Your task to perform on an android device: Go to accessibility settings Image 0: 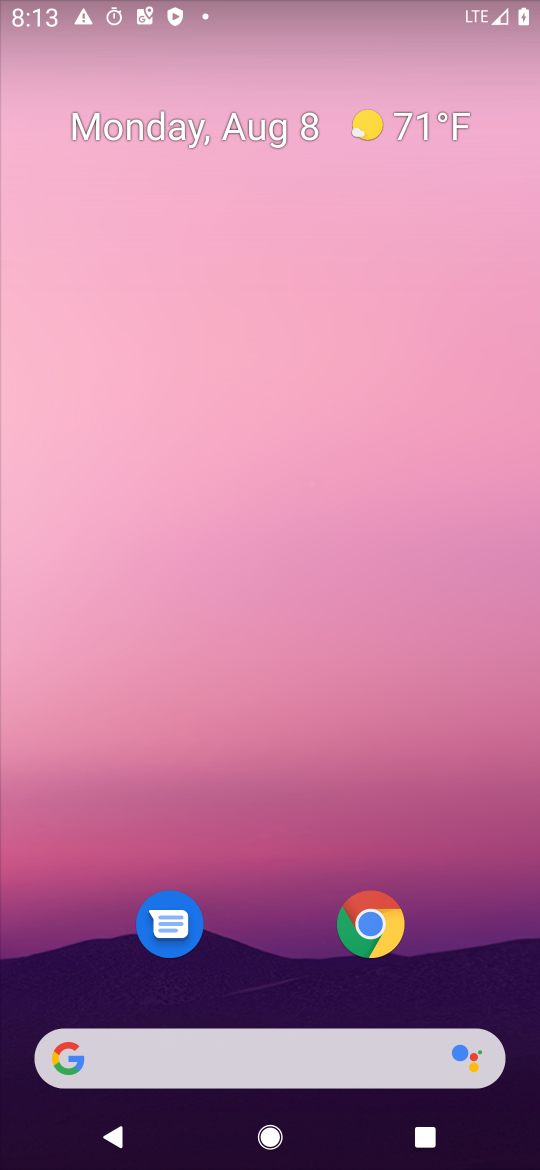
Step 0: press home button
Your task to perform on an android device: Go to accessibility settings Image 1: 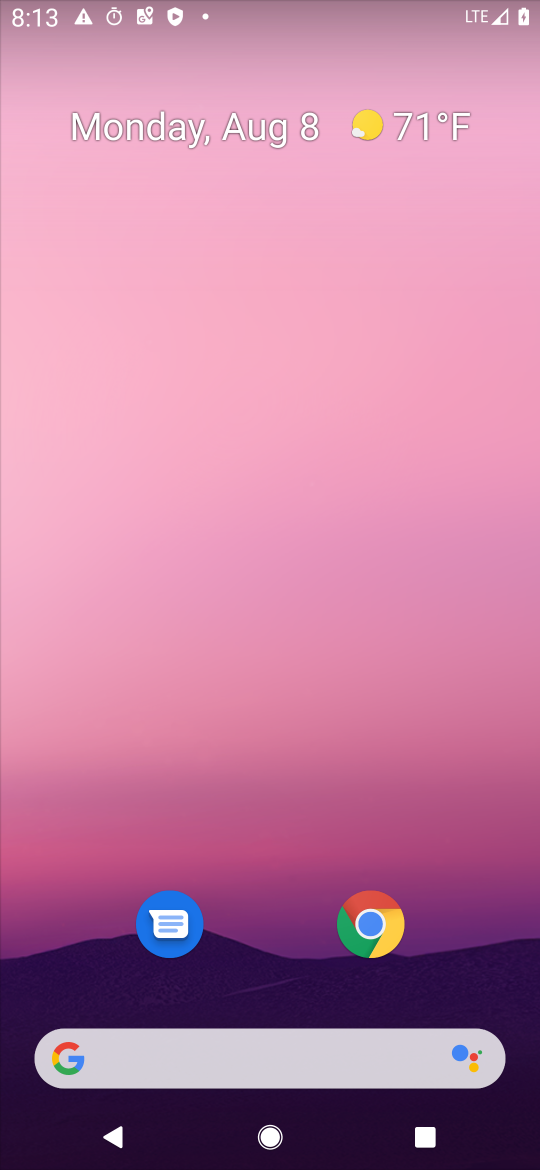
Step 1: drag from (240, 966) to (380, 278)
Your task to perform on an android device: Go to accessibility settings Image 2: 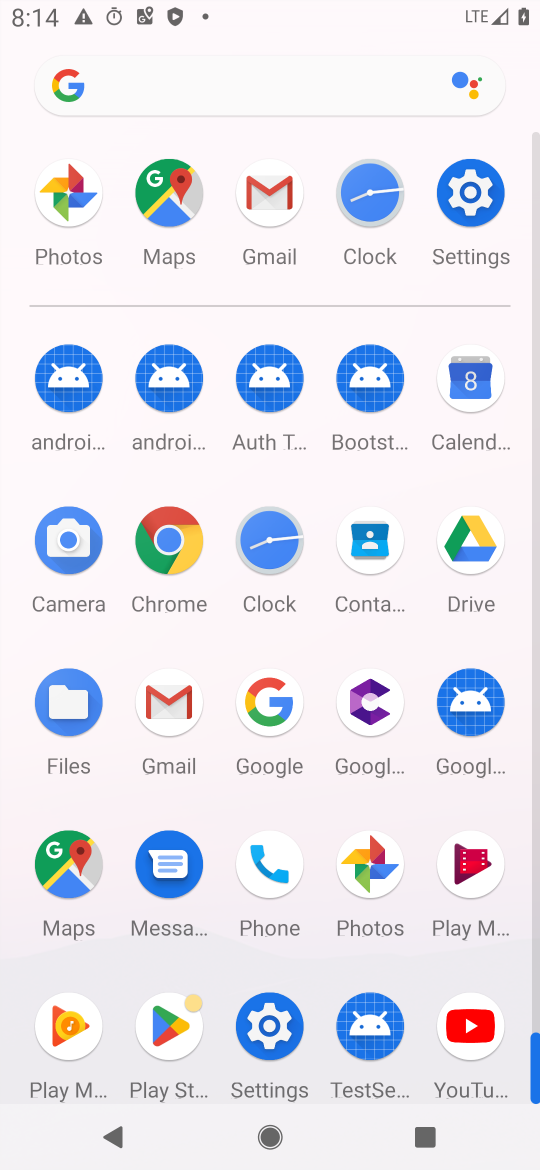
Step 2: click (270, 1015)
Your task to perform on an android device: Go to accessibility settings Image 3: 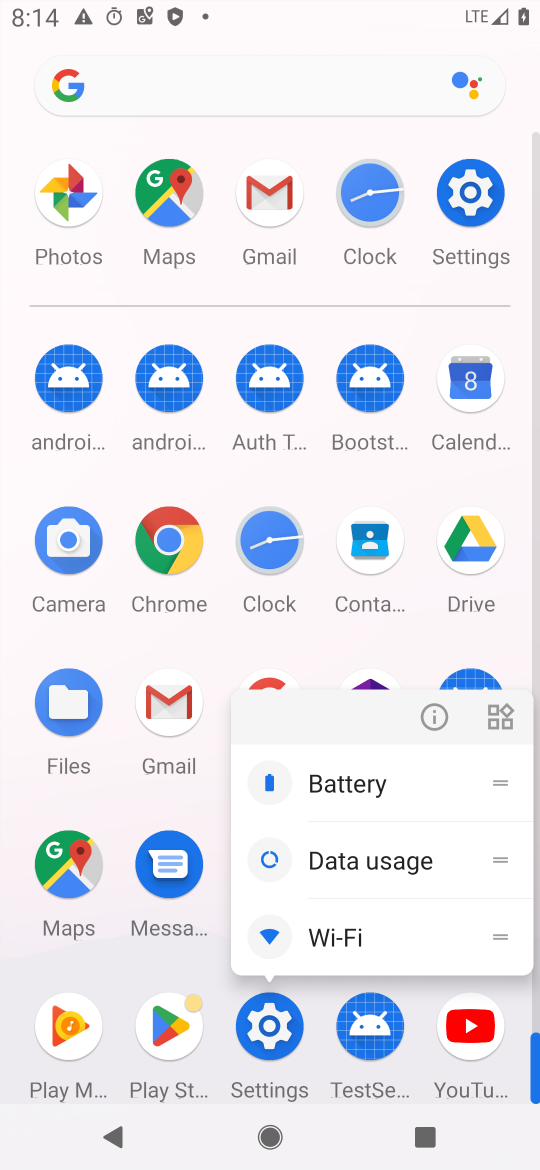
Step 3: click (434, 699)
Your task to perform on an android device: Go to accessibility settings Image 4: 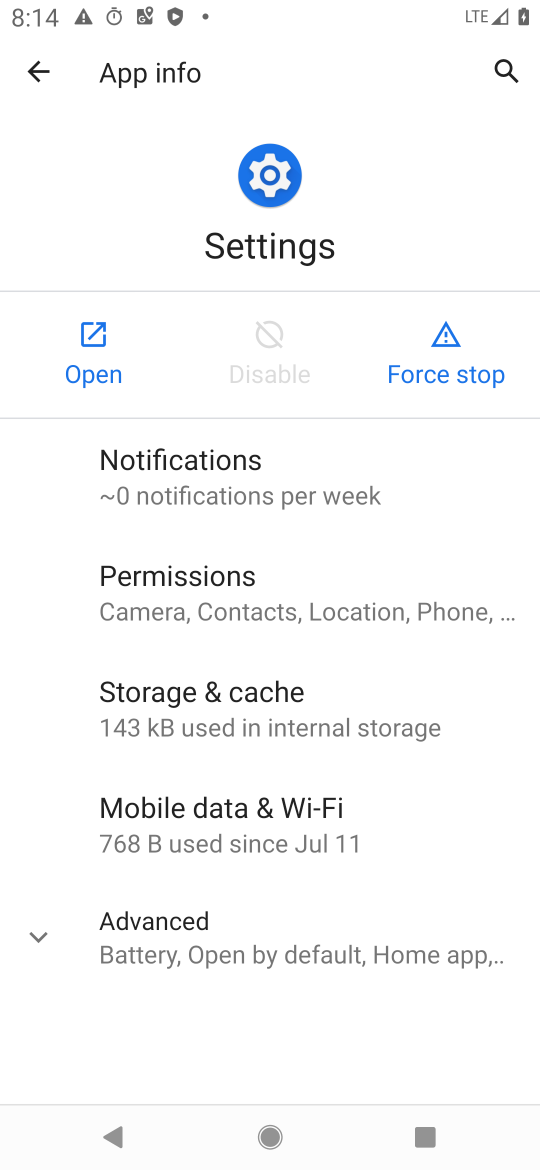
Step 4: click (80, 344)
Your task to perform on an android device: Go to accessibility settings Image 5: 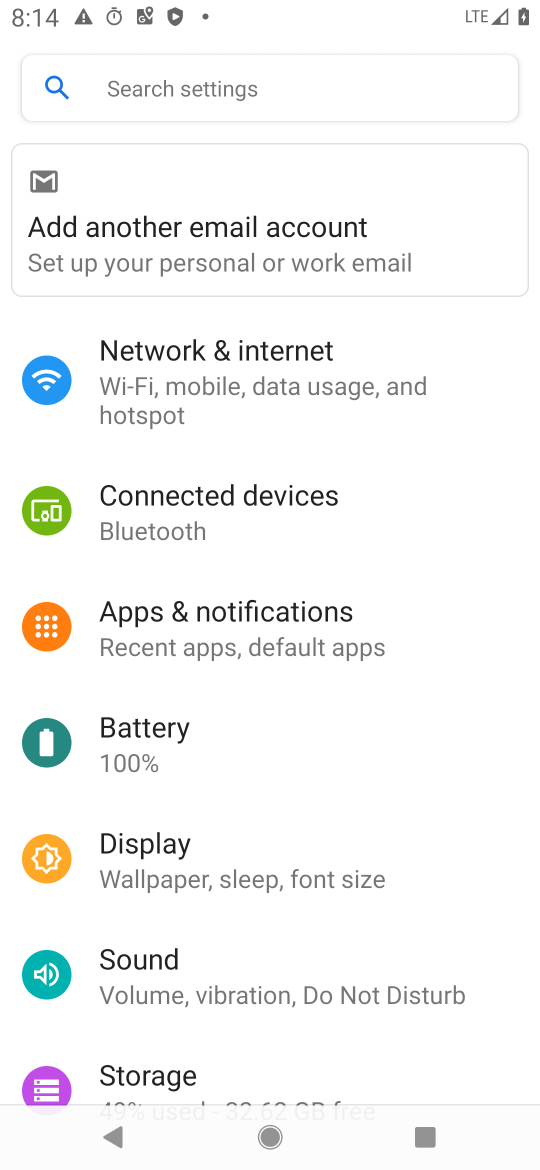
Step 5: drag from (249, 948) to (278, 64)
Your task to perform on an android device: Go to accessibility settings Image 6: 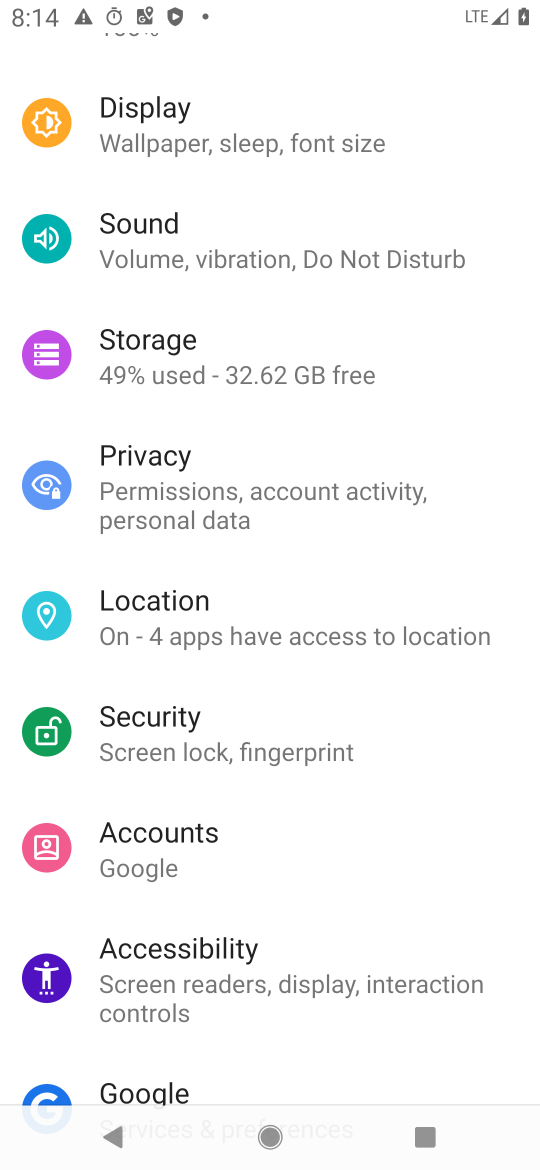
Step 6: click (216, 974)
Your task to perform on an android device: Go to accessibility settings Image 7: 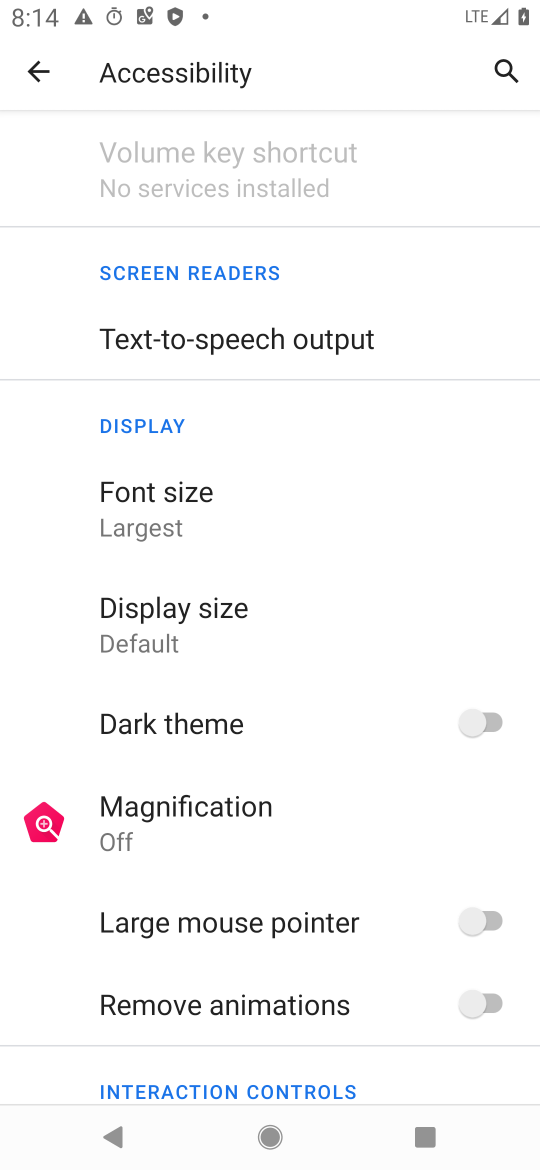
Step 7: task complete